Your task to perform on an android device: Go to Yahoo.com Image 0: 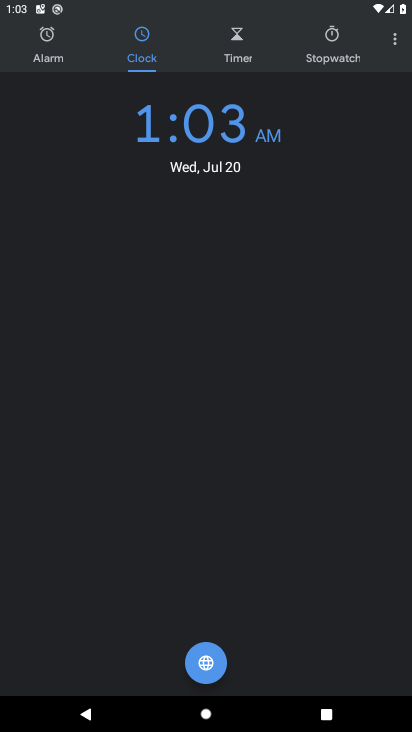
Step 0: press home button
Your task to perform on an android device: Go to Yahoo.com Image 1: 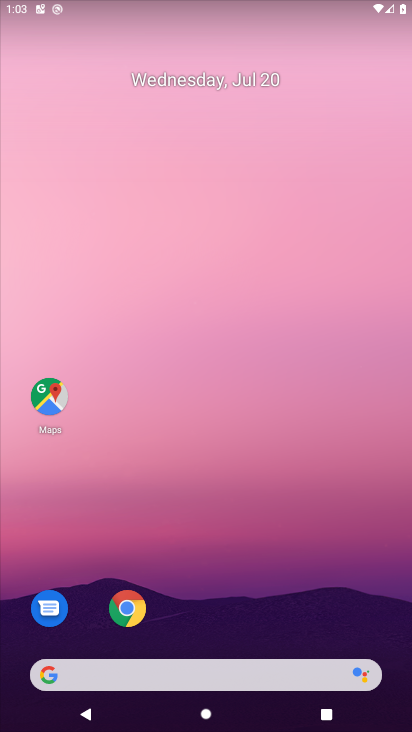
Step 1: click (130, 613)
Your task to perform on an android device: Go to Yahoo.com Image 2: 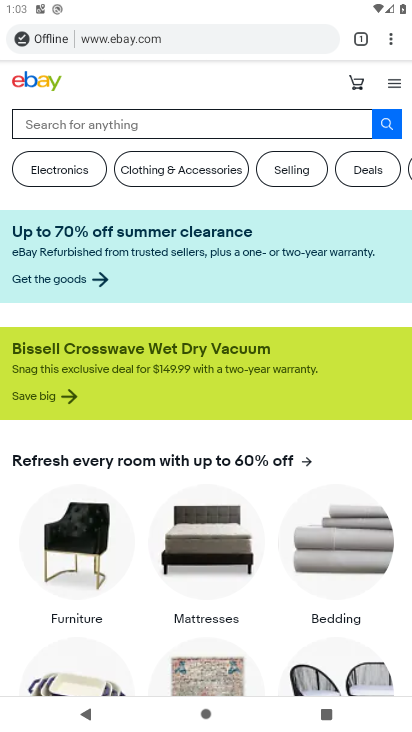
Step 2: click (366, 35)
Your task to perform on an android device: Go to Yahoo.com Image 3: 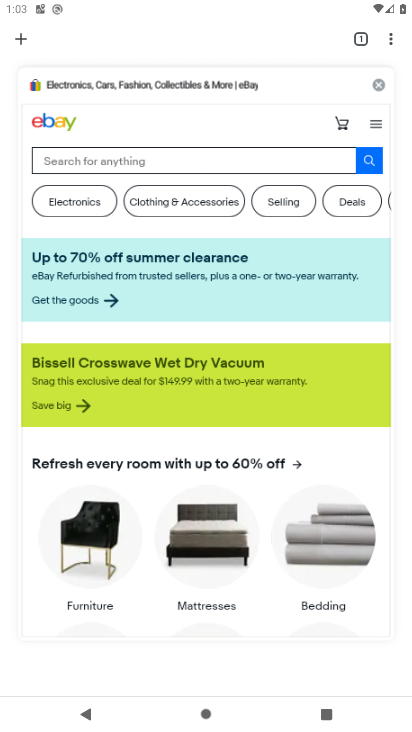
Step 3: click (384, 86)
Your task to perform on an android device: Go to Yahoo.com Image 4: 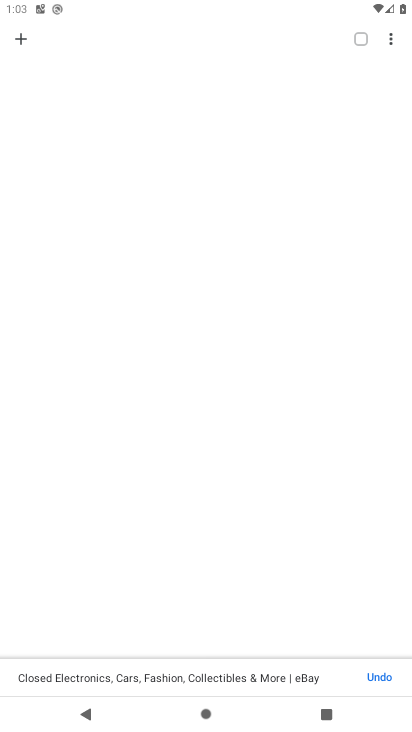
Step 4: click (21, 36)
Your task to perform on an android device: Go to Yahoo.com Image 5: 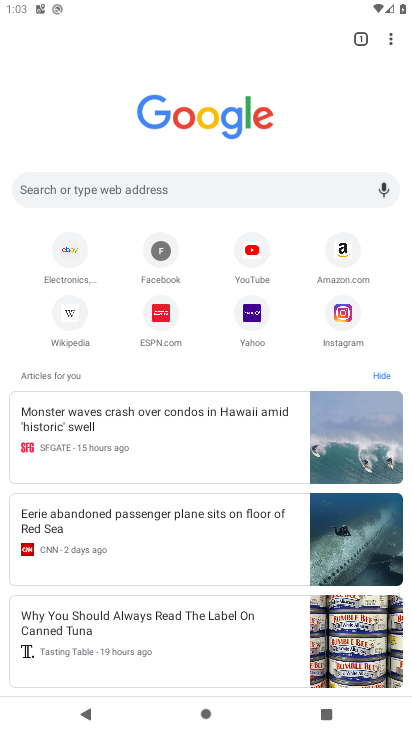
Step 5: click (245, 317)
Your task to perform on an android device: Go to Yahoo.com Image 6: 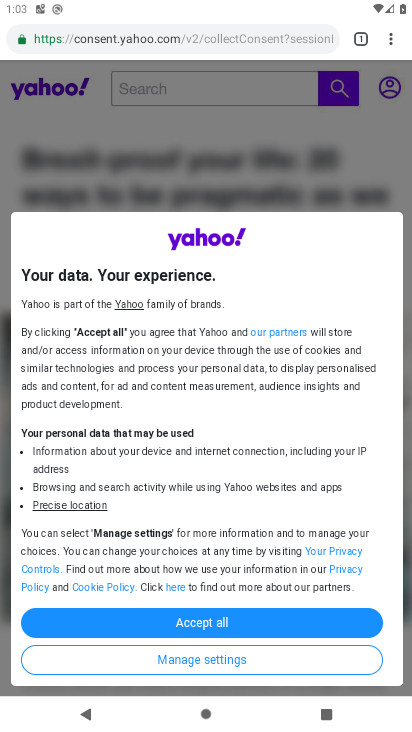
Step 6: task complete